Your task to perform on an android device: When is my next meeting? Image 0: 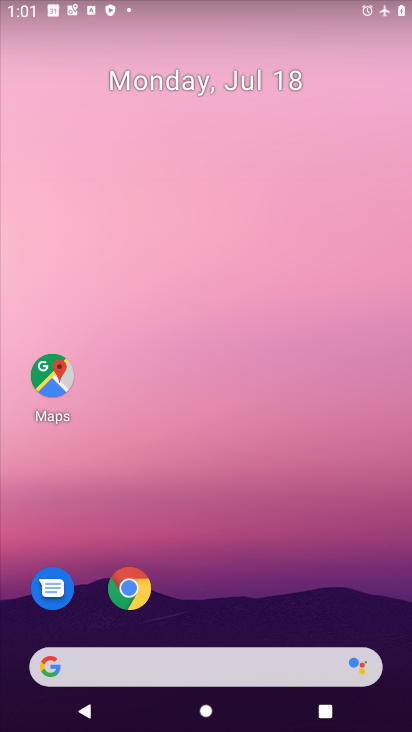
Step 0: drag from (239, 530) to (150, 232)
Your task to perform on an android device: When is my next meeting? Image 1: 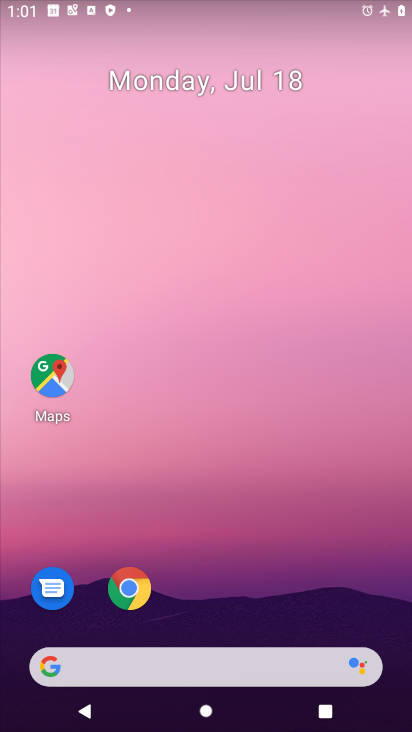
Step 1: drag from (201, 502) to (233, 118)
Your task to perform on an android device: When is my next meeting? Image 2: 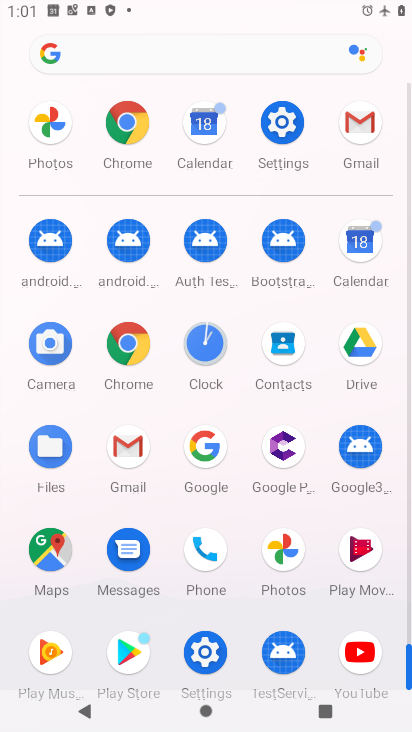
Step 2: click (360, 272)
Your task to perform on an android device: When is my next meeting? Image 3: 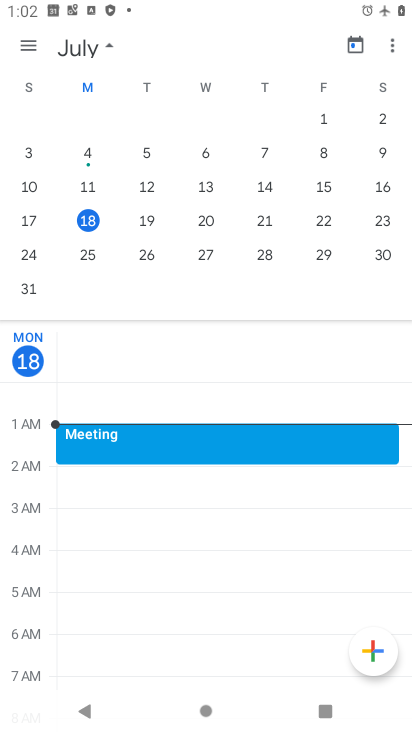
Step 3: click (30, 51)
Your task to perform on an android device: When is my next meeting? Image 4: 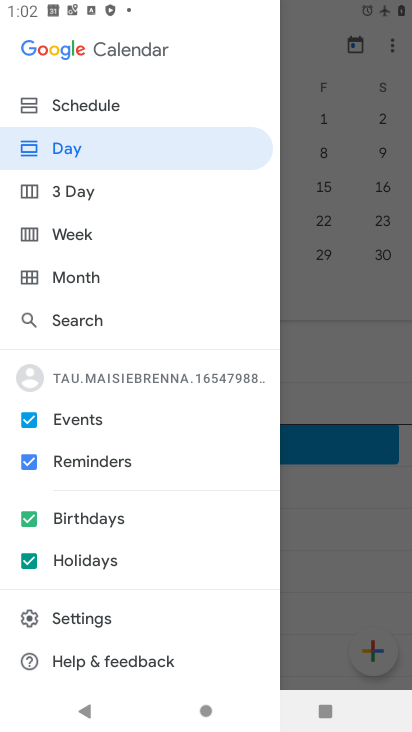
Step 4: click (67, 109)
Your task to perform on an android device: When is my next meeting? Image 5: 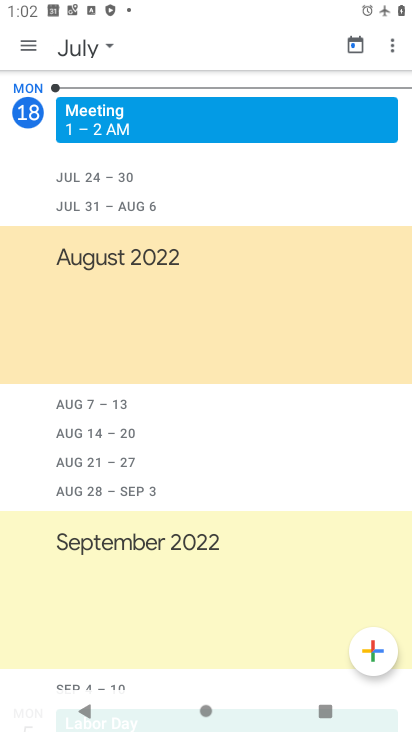
Step 5: task complete